Your task to perform on an android device: Set the phone to "Do not disturb". Image 0: 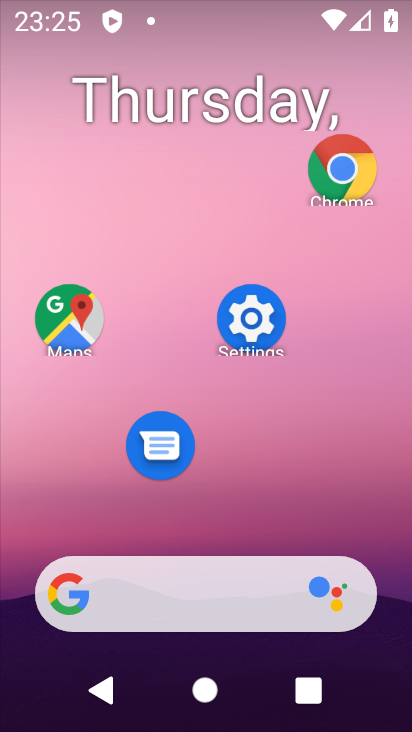
Step 0: click (250, 174)
Your task to perform on an android device: Set the phone to "Do not disturb". Image 1: 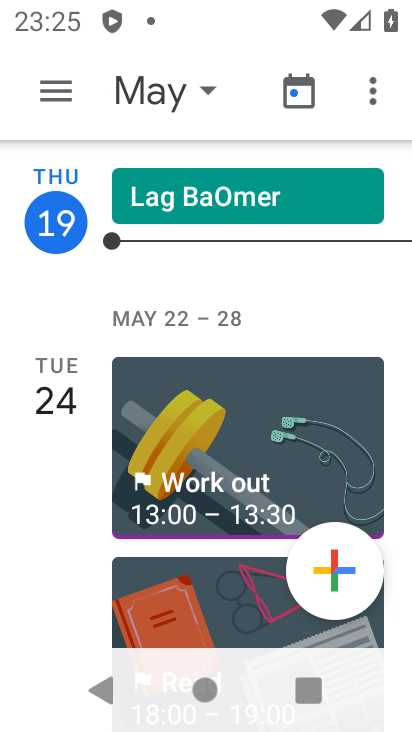
Step 1: press home button
Your task to perform on an android device: Set the phone to "Do not disturb". Image 2: 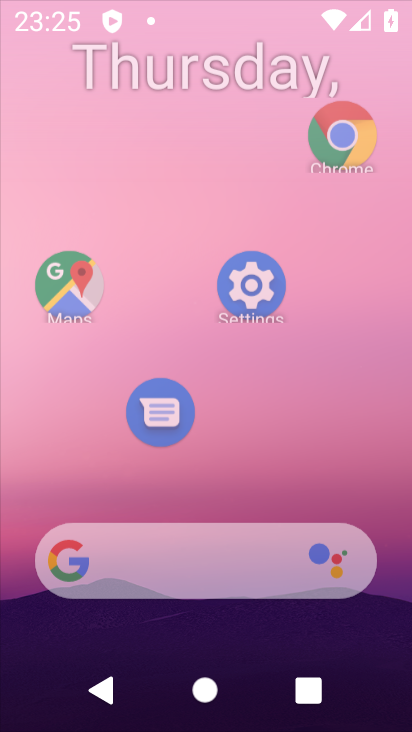
Step 2: drag from (157, 586) to (221, 272)
Your task to perform on an android device: Set the phone to "Do not disturb". Image 3: 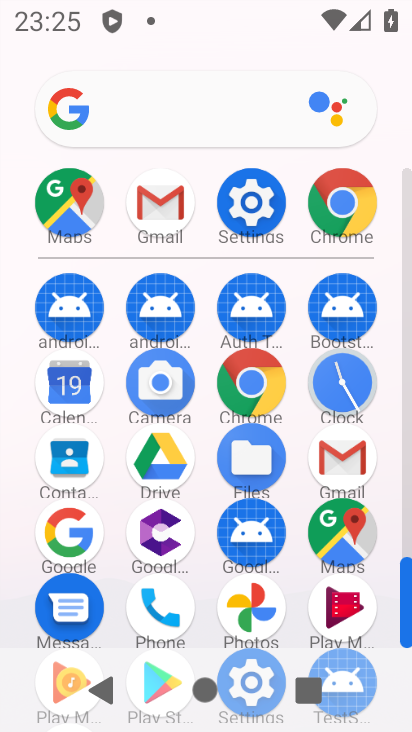
Step 3: click (281, 201)
Your task to perform on an android device: Set the phone to "Do not disturb". Image 4: 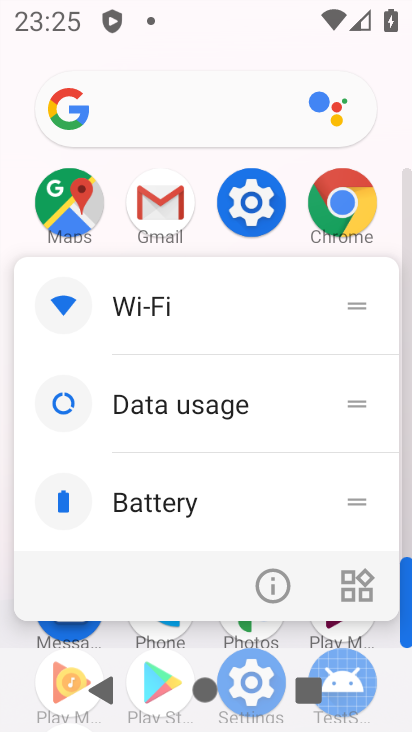
Step 4: click (258, 575)
Your task to perform on an android device: Set the phone to "Do not disturb". Image 5: 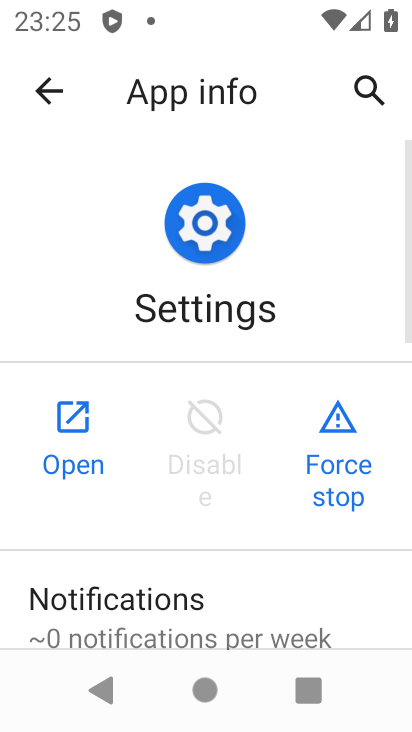
Step 5: click (61, 420)
Your task to perform on an android device: Set the phone to "Do not disturb". Image 6: 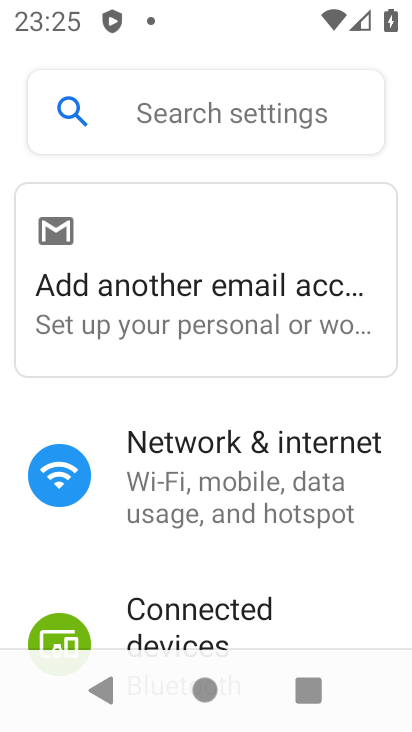
Step 6: drag from (202, 543) to (386, 46)
Your task to perform on an android device: Set the phone to "Do not disturb". Image 7: 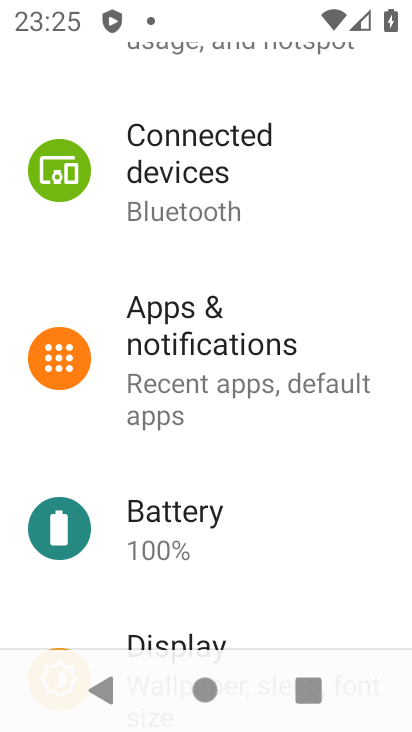
Step 7: drag from (240, 515) to (355, 121)
Your task to perform on an android device: Set the phone to "Do not disturb". Image 8: 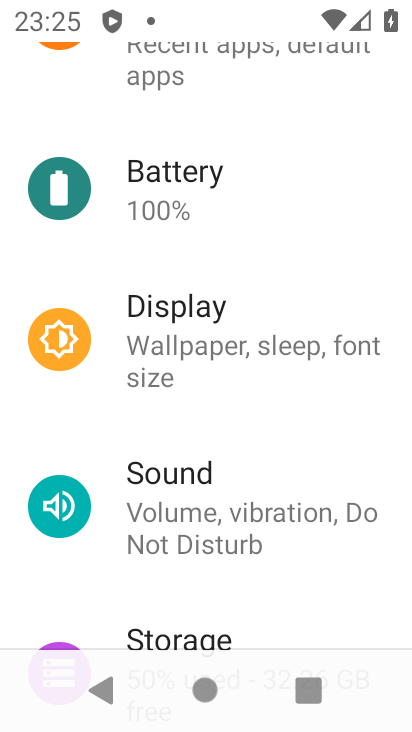
Step 8: drag from (181, 99) to (182, 485)
Your task to perform on an android device: Set the phone to "Do not disturb". Image 9: 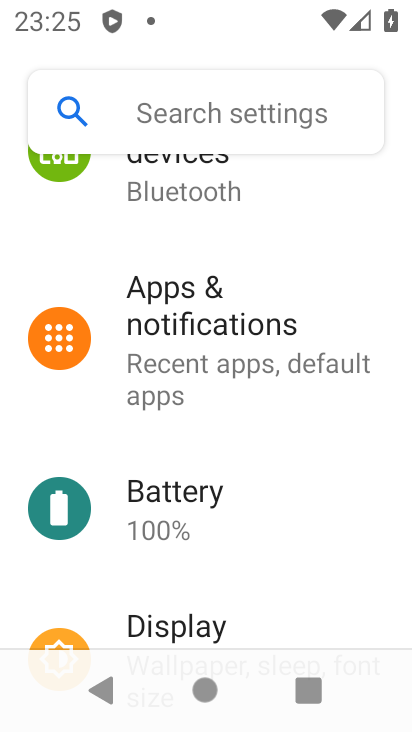
Step 9: click (182, 347)
Your task to perform on an android device: Set the phone to "Do not disturb". Image 10: 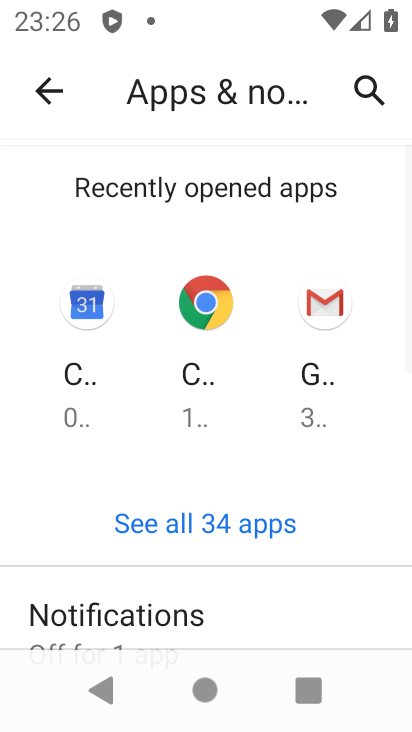
Step 10: click (123, 596)
Your task to perform on an android device: Set the phone to "Do not disturb". Image 11: 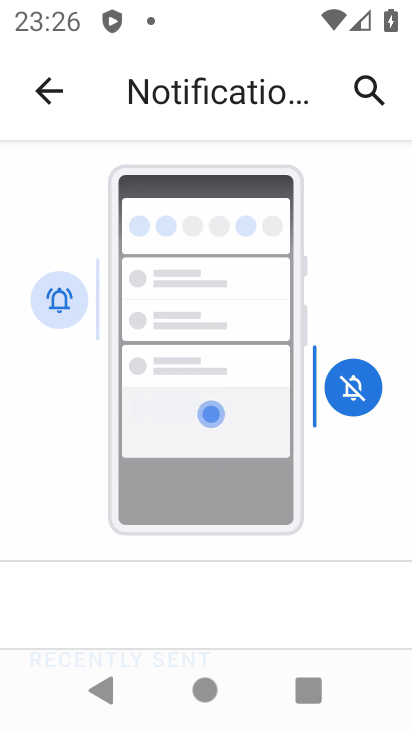
Step 11: drag from (269, 517) to (405, 111)
Your task to perform on an android device: Set the phone to "Do not disturb". Image 12: 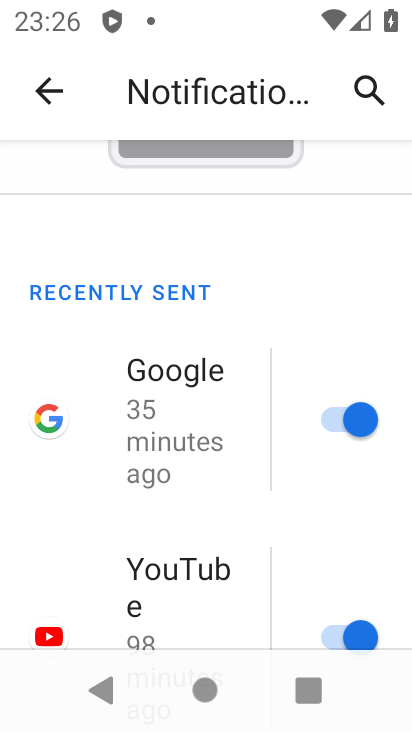
Step 12: drag from (168, 668) to (409, 136)
Your task to perform on an android device: Set the phone to "Do not disturb". Image 13: 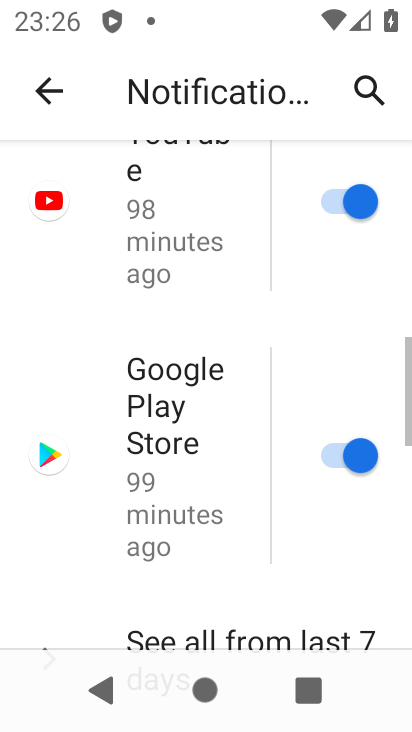
Step 13: drag from (200, 600) to (401, 170)
Your task to perform on an android device: Set the phone to "Do not disturb". Image 14: 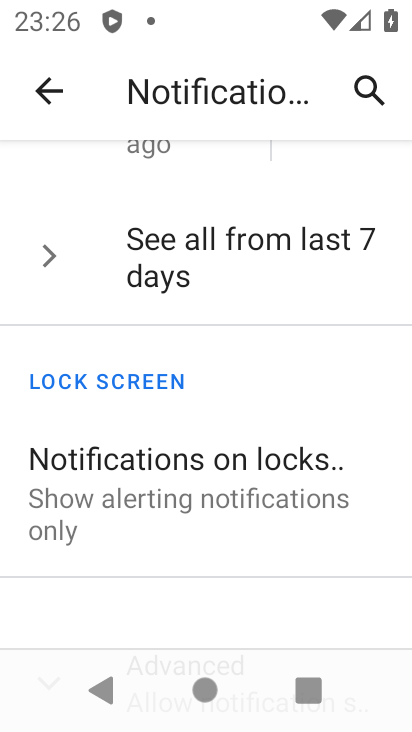
Step 14: drag from (205, 593) to (409, 184)
Your task to perform on an android device: Set the phone to "Do not disturb". Image 15: 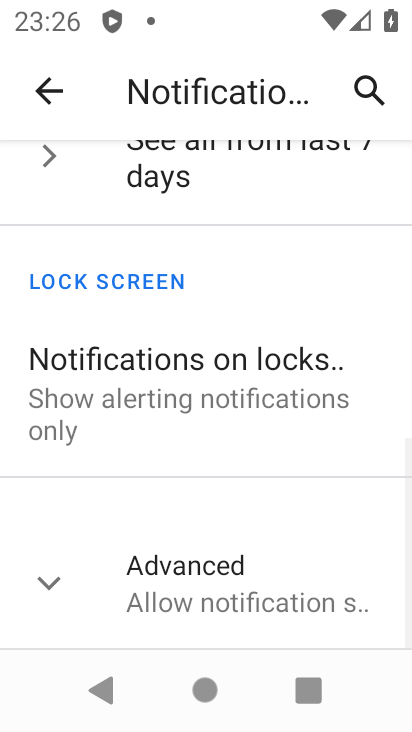
Step 15: click (127, 551)
Your task to perform on an android device: Set the phone to "Do not disturb". Image 16: 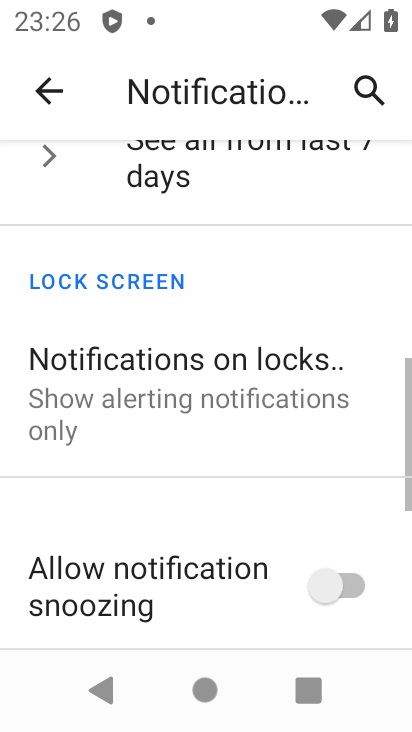
Step 16: drag from (124, 535) to (359, 67)
Your task to perform on an android device: Set the phone to "Do not disturb". Image 17: 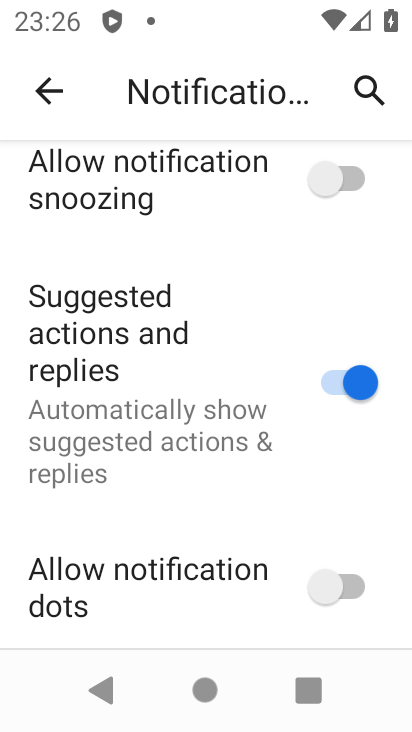
Step 17: drag from (222, 581) to (320, 323)
Your task to perform on an android device: Set the phone to "Do not disturb". Image 18: 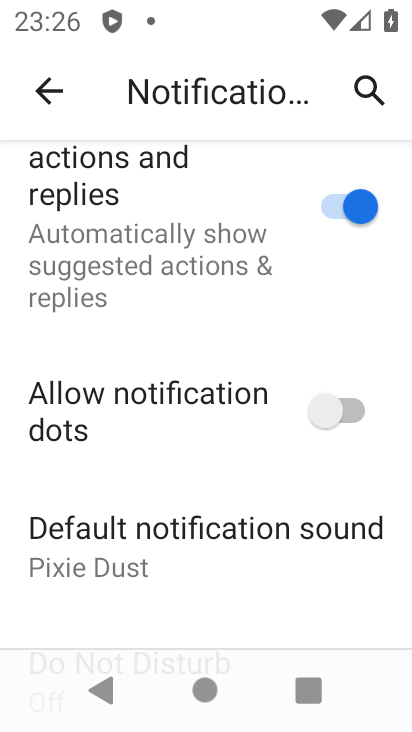
Step 18: drag from (245, 575) to (356, 222)
Your task to perform on an android device: Set the phone to "Do not disturb". Image 19: 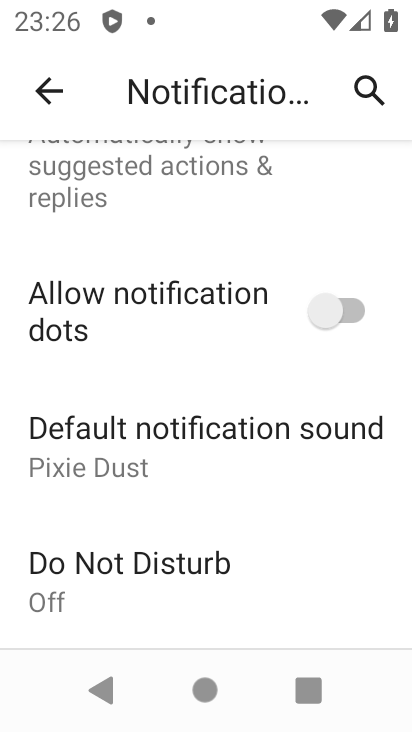
Step 19: click (97, 549)
Your task to perform on an android device: Set the phone to "Do not disturb". Image 20: 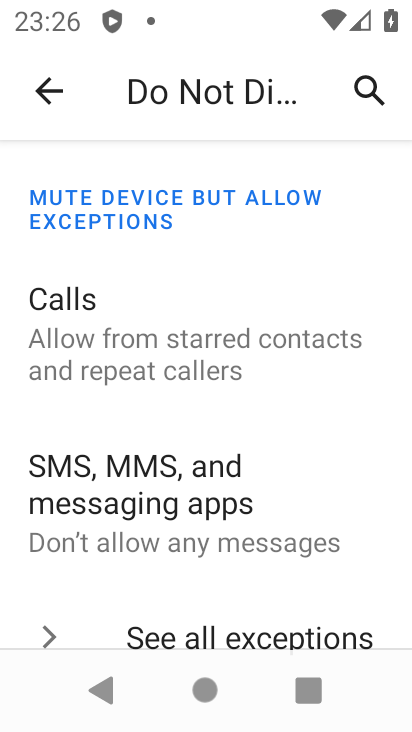
Step 20: drag from (130, 594) to (303, 99)
Your task to perform on an android device: Set the phone to "Do not disturb". Image 21: 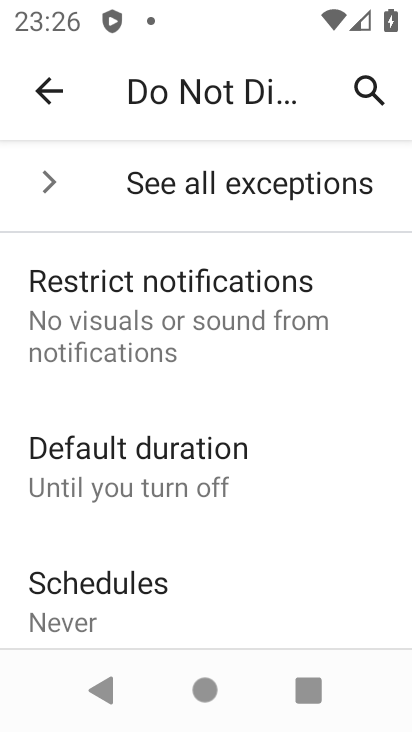
Step 21: drag from (137, 507) to (279, 151)
Your task to perform on an android device: Set the phone to "Do not disturb". Image 22: 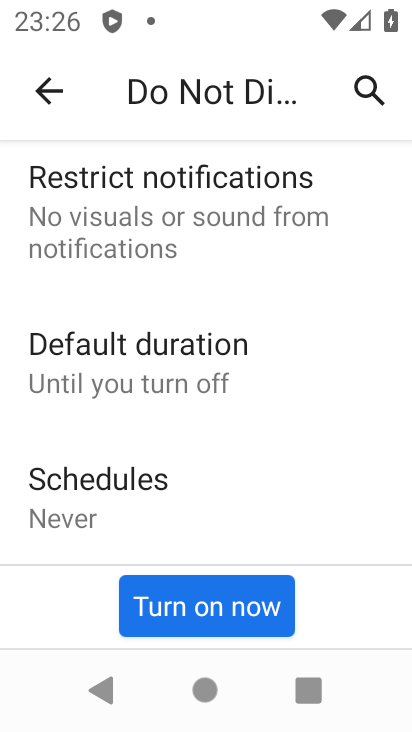
Step 22: click (179, 598)
Your task to perform on an android device: Set the phone to "Do not disturb". Image 23: 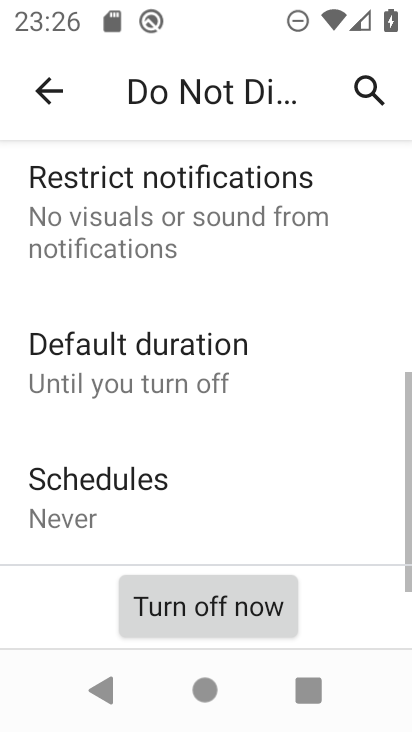
Step 23: task complete